Your task to perform on an android device: Turn off the flashlight Image 0: 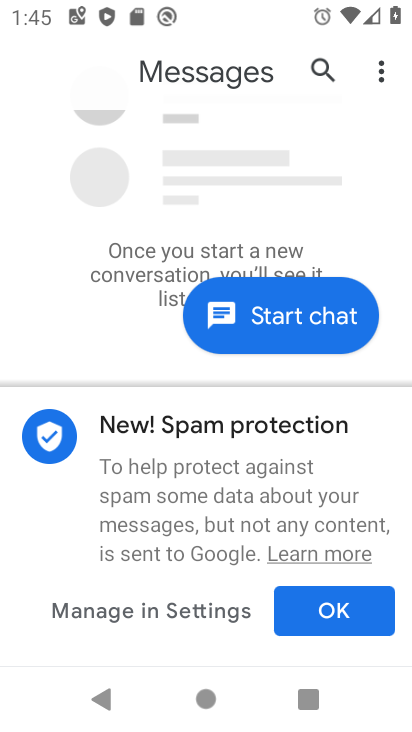
Step 0: press home button
Your task to perform on an android device: Turn off the flashlight Image 1: 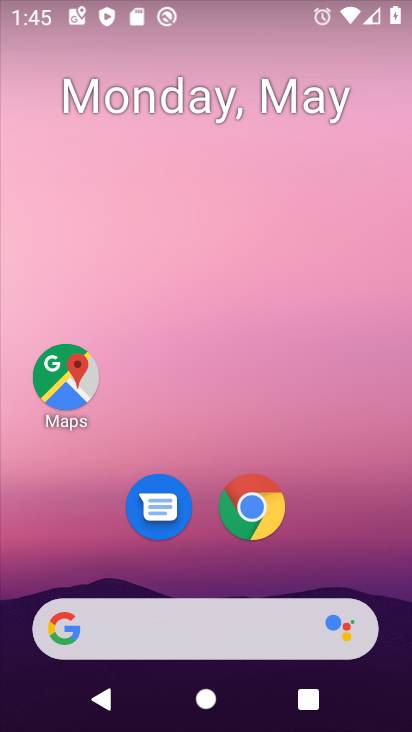
Step 1: drag from (243, 723) to (242, 191)
Your task to perform on an android device: Turn off the flashlight Image 2: 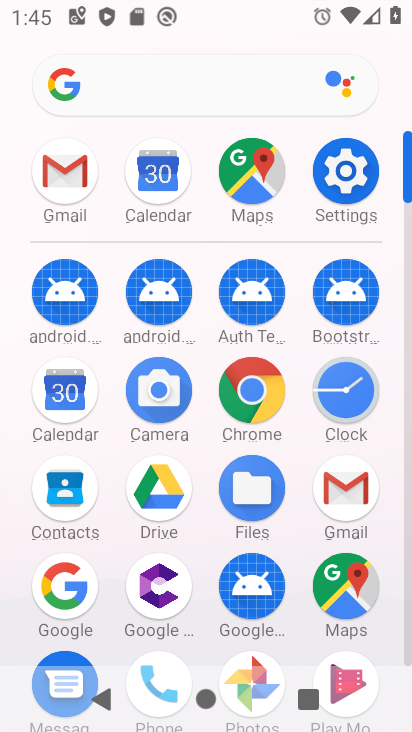
Step 2: click (332, 165)
Your task to perform on an android device: Turn off the flashlight Image 3: 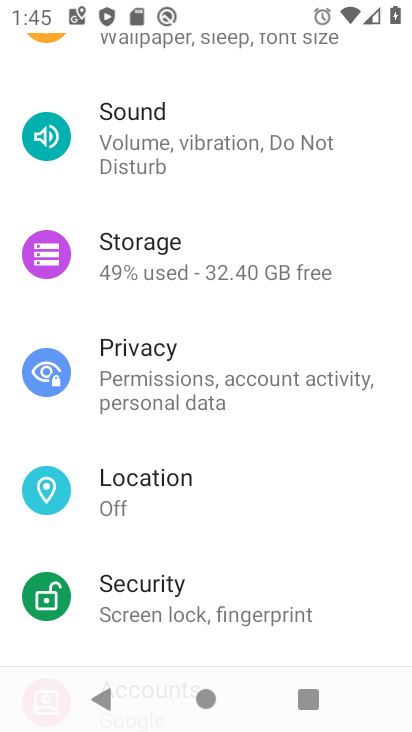
Step 3: task complete